Your task to perform on an android device: Open Youtube and go to "Your channel" Image 0: 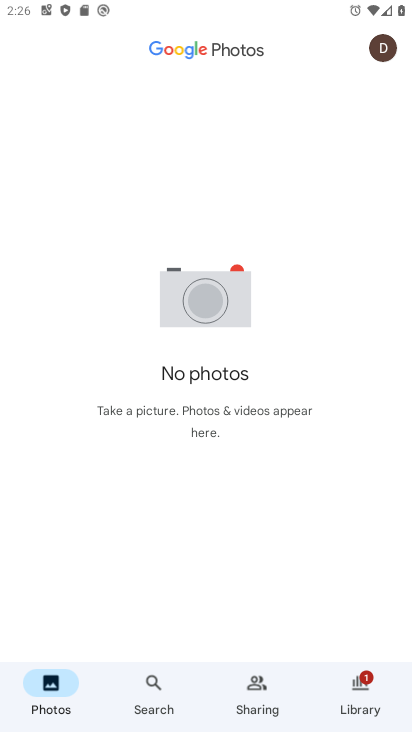
Step 0: press home button
Your task to perform on an android device: Open Youtube and go to "Your channel" Image 1: 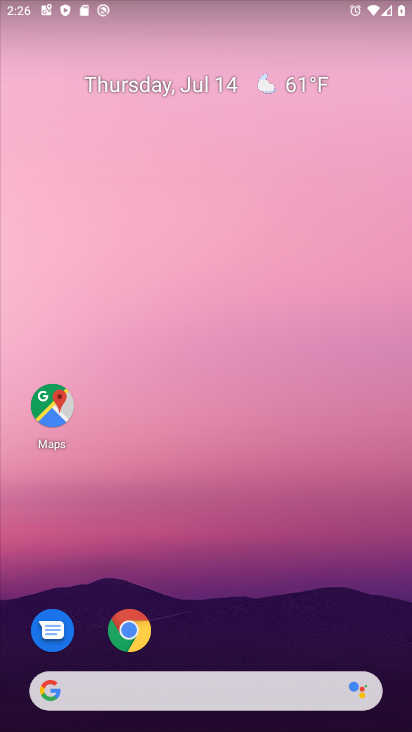
Step 1: drag from (221, 681) to (326, 231)
Your task to perform on an android device: Open Youtube and go to "Your channel" Image 2: 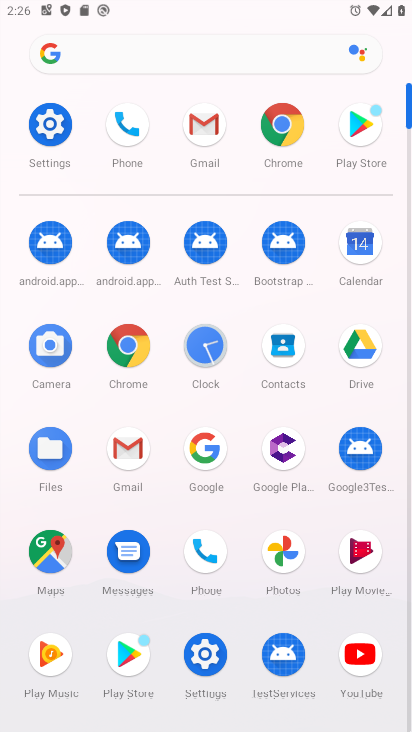
Step 2: click (362, 662)
Your task to perform on an android device: Open Youtube and go to "Your channel" Image 3: 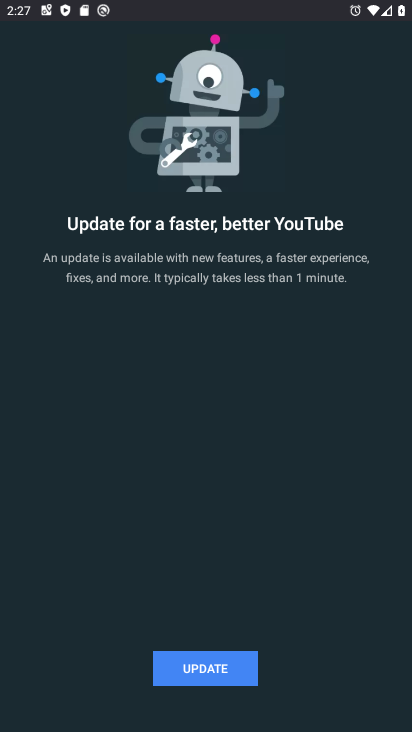
Step 3: click (228, 665)
Your task to perform on an android device: Open Youtube and go to "Your channel" Image 4: 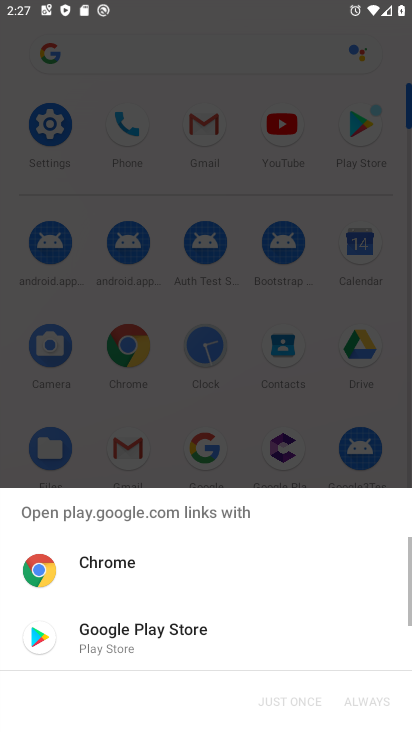
Step 4: click (142, 639)
Your task to perform on an android device: Open Youtube and go to "Your channel" Image 5: 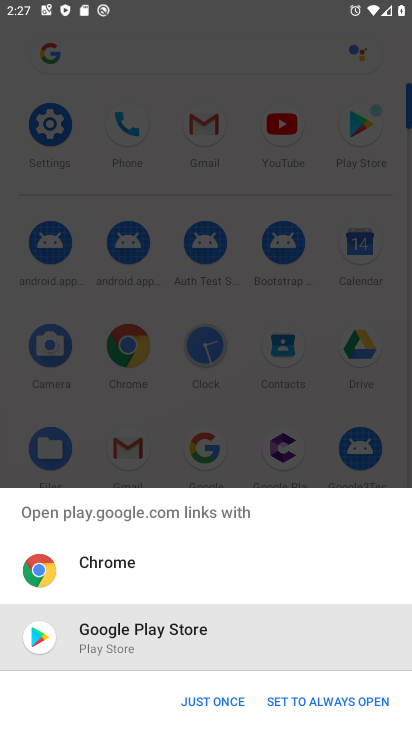
Step 5: click (210, 704)
Your task to perform on an android device: Open Youtube and go to "Your channel" Image 6: 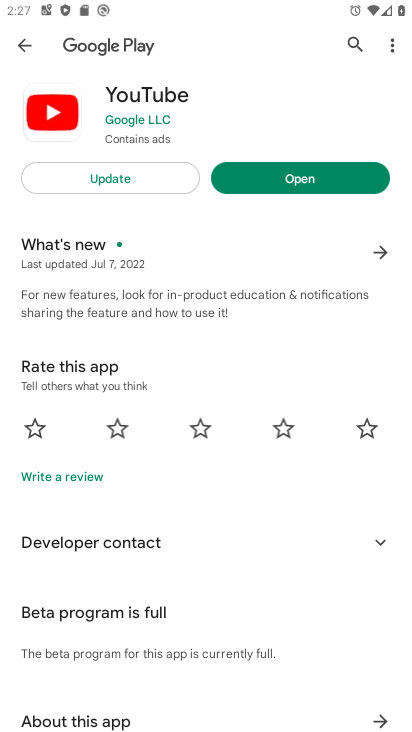
Step 6: click (135, 170)
Your task to perform on an android device: Open Youtube and go to "Your channel" Image 7: 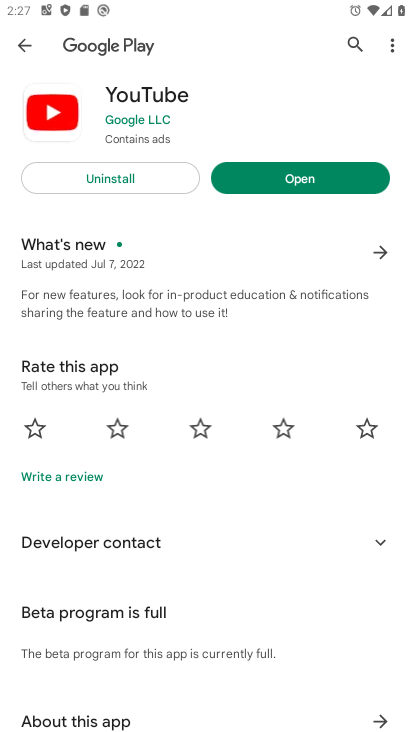
Step 7: click (330, 172)
Your task to perform on an android device: Open Youtube and go to "Your channel" Image 8: 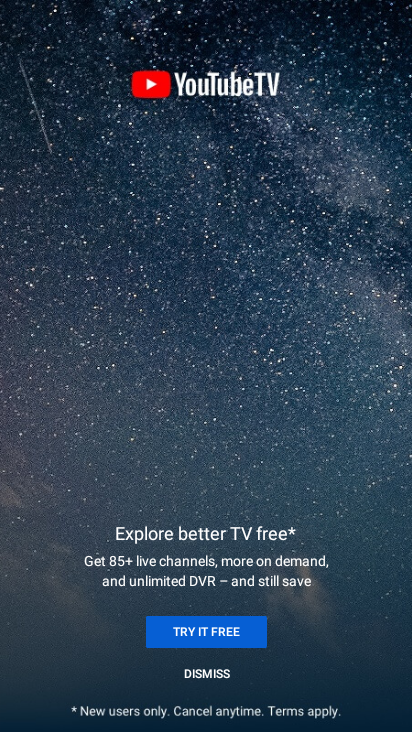
Step 8: click (223, 675)
Your task to perform on an android device: Open Youtube and go to "Your channel" Image 9: 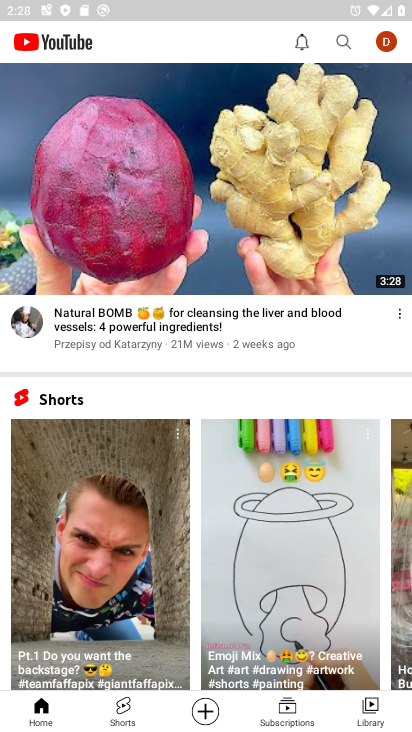
Step 9: click (390, 39)
Your task to perform on an android device: Open Youtube and go to "Your channel" Image 10: 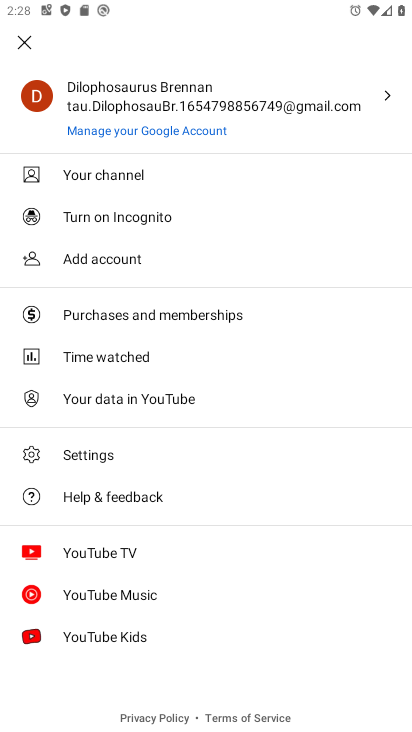
Step 10: click (79, 171)
Your task to perform on an android device: Open Youtube and go to "Your channel" Image 11: 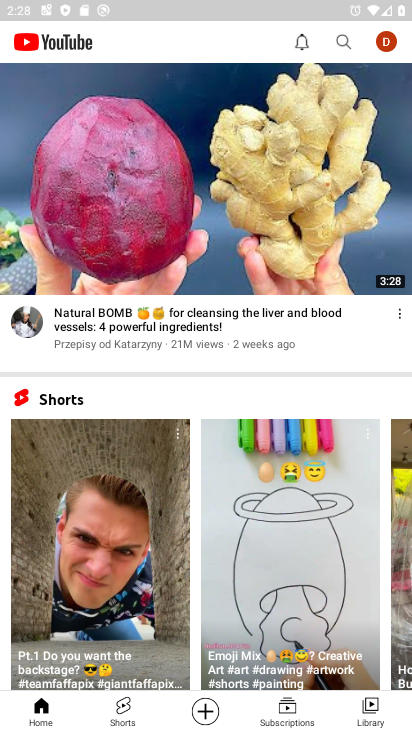
Step 11: click (377, 35)
Your task to perform on an android device: Open Youtube and go to "Your channel" Image 12: 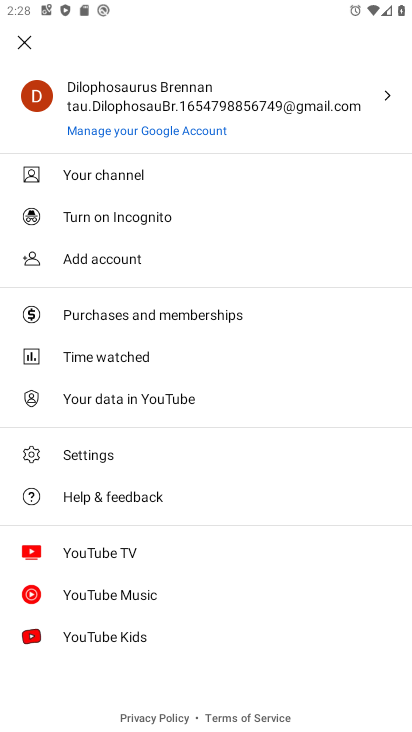
Step 12: click (94, 177)
Your task to perform on an android device: Open Youtube and go to "Your channel" Image 13: 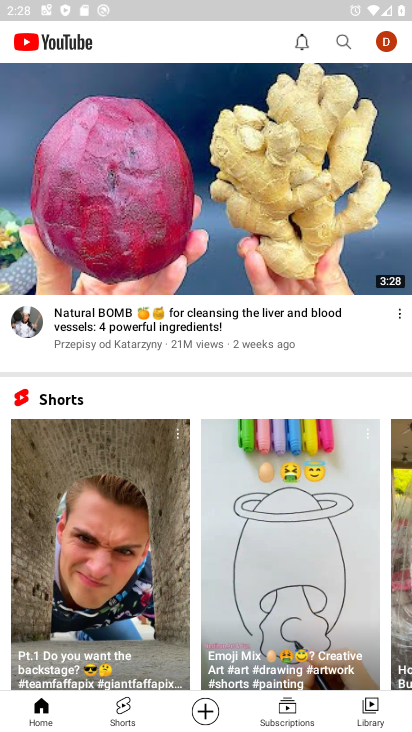
Step 13: task complete